Your task to perform on an android device: turn off location history Image 0: 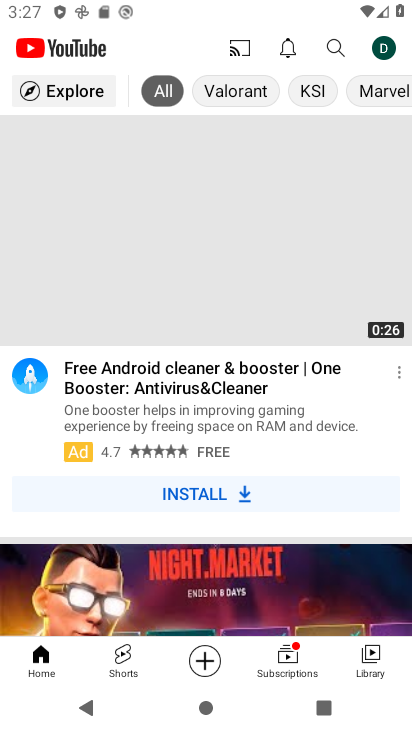
Step 0: press home button
Your task to perform on an android device: turn off location history Image 1: 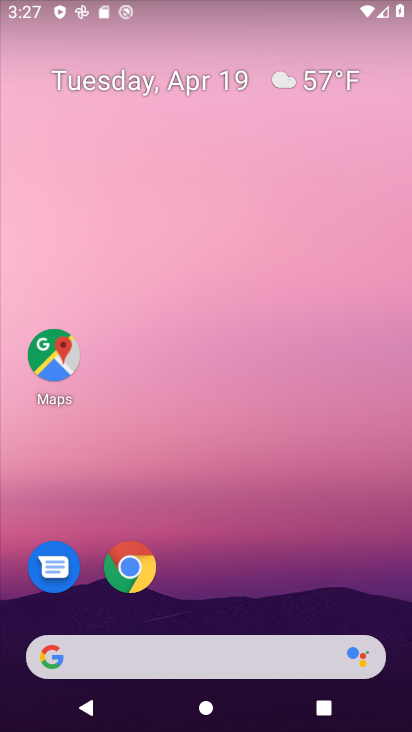
Step 1: drag from (328, 589) to (348, 170)
Your task to perform on an android device: turn off location history Image 2: 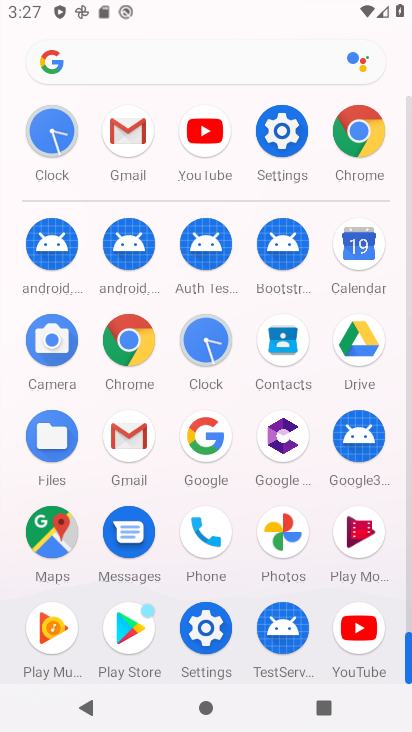
Step 2: click (286, 132)
Your task to perform on an android device: turn off location history Image 3: 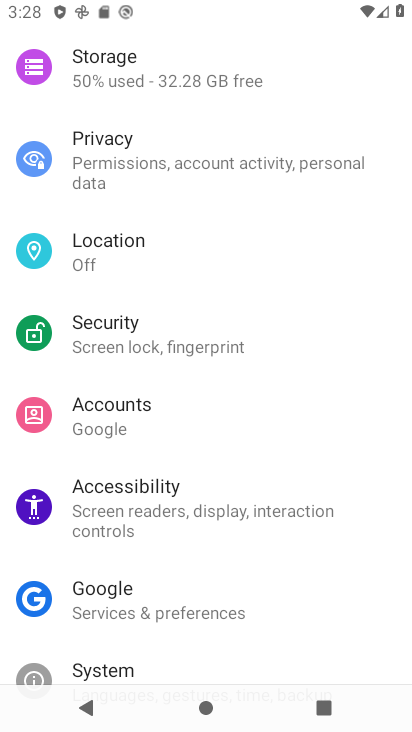
Step 3: drag from (341, 586) to (358, 318)
Your task to perform on an android device: turn off location history Image 4: 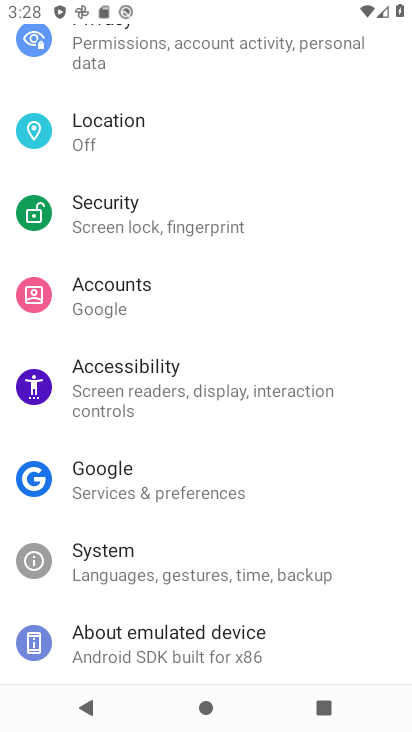
Step 4: drag from (366, 295) to (355, 524)
Your task to perform on an android device: turn off location history Image 5: 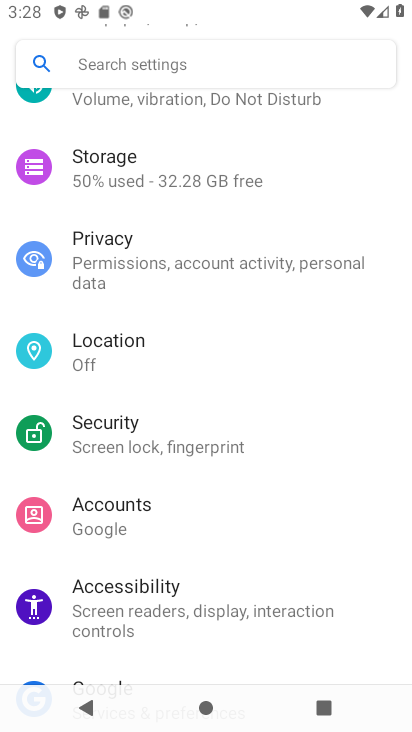
Step 5: drag from (382, 231) to (360, 545)
Your task to perform on an android device: turn off location history Image 6: 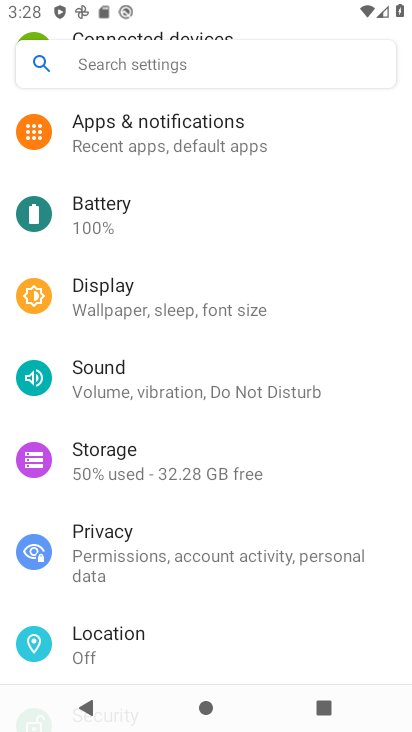
Step 6: drag from (356, 607) to (366, 326)
Your task to perform on an android device: turn off location history Image 7: 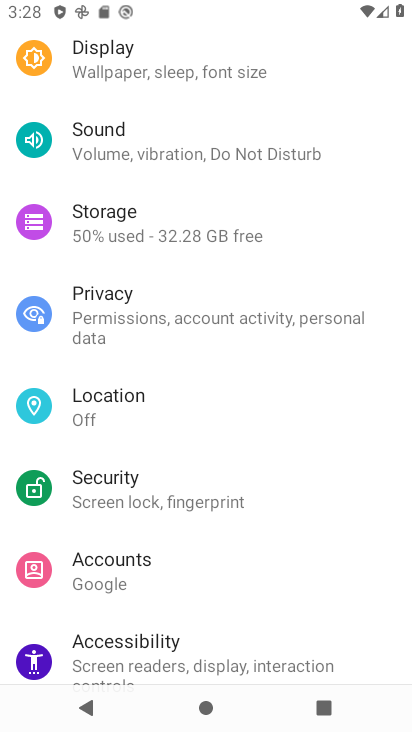
Step 7: click (74, 400)
Your task to perform on an android device: turn off location history Image 8: 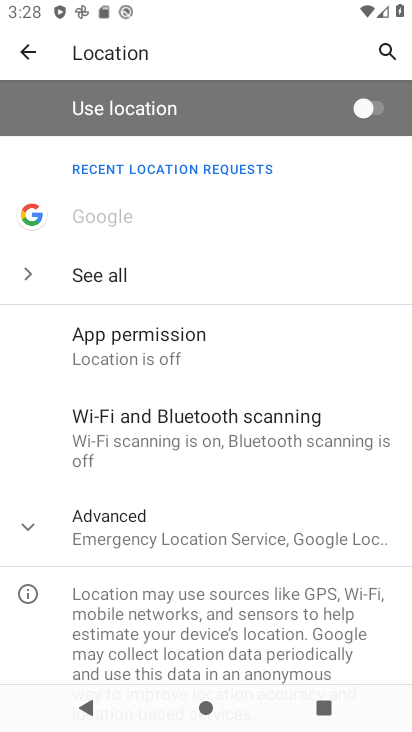
Step 8: task complete